Your task to perform on an android device: Is it going to rain today? Image 0: 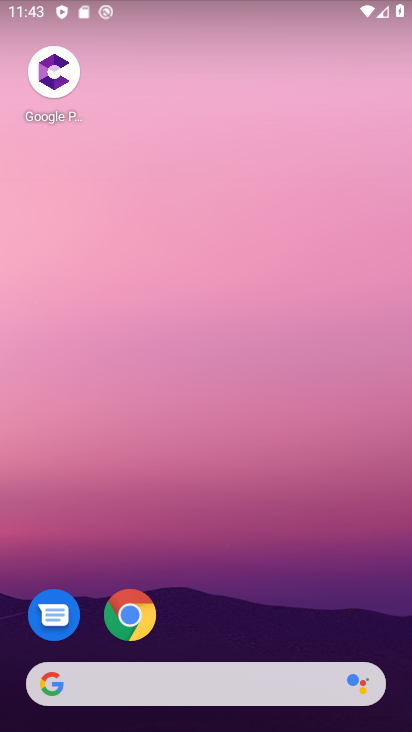
Step 0: click (182, 687)
Your task to perform on an android device: Is it going to rain today? Image 1: 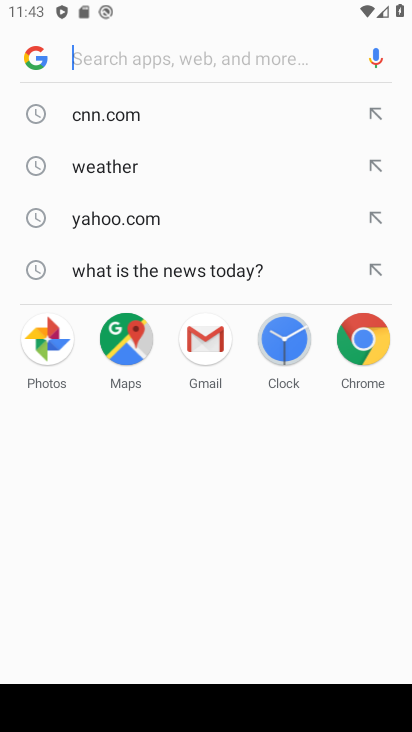
Step 1: type "Is it going to rain today?"
Your task to perform on an android device: Is it going to rain today? Image 2: 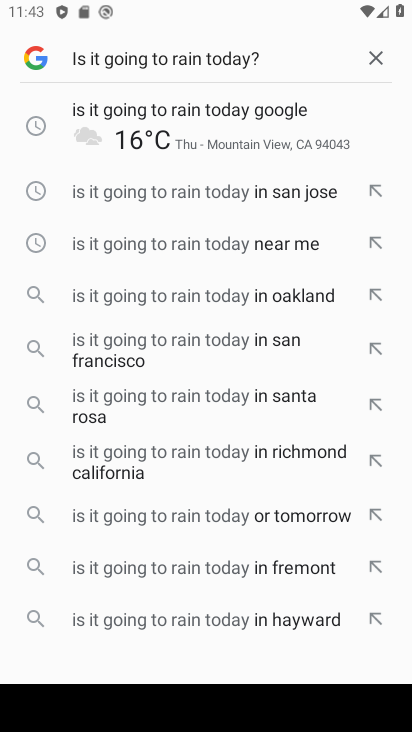
Step 2: click (281, 119)
Your task to perform on an android device: Is it going to rain today? Image 3: 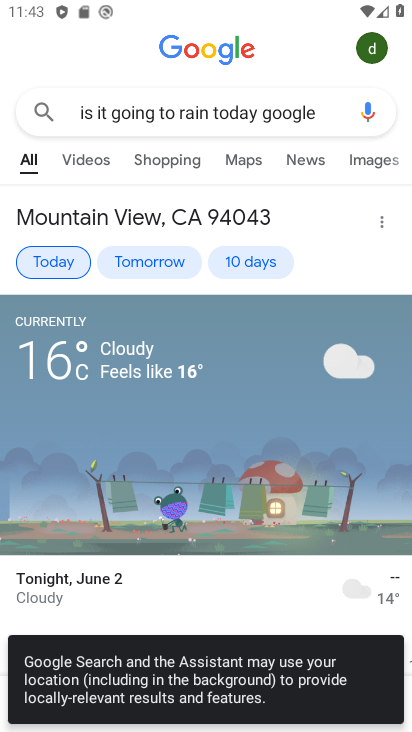
Step 3: task complete